Your task to perform on an android device: Open notification settings Image 0: 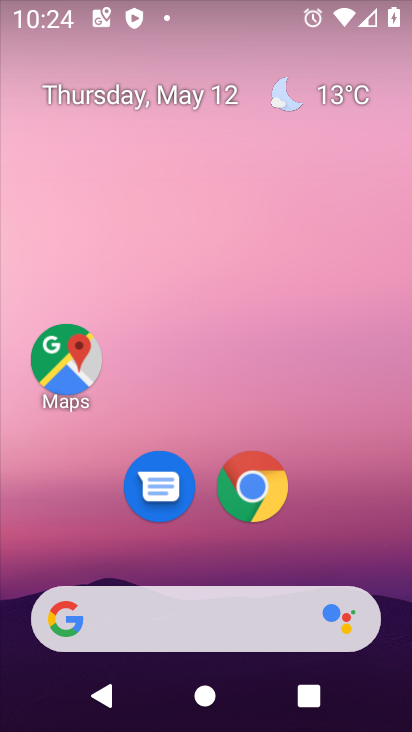
Step 0: drag from (364, 483) to (290, 153)
Your task to perform on an android device: Open notification settings Image 1: 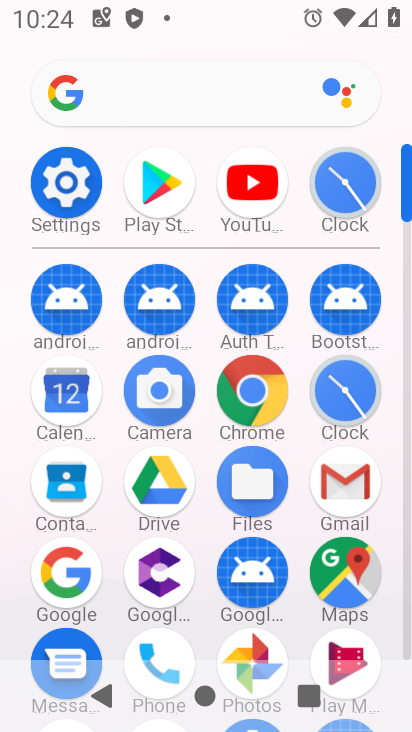
Step 1: click (71, 177)
Your task to perform on an android device: Open notification settings Image 2: 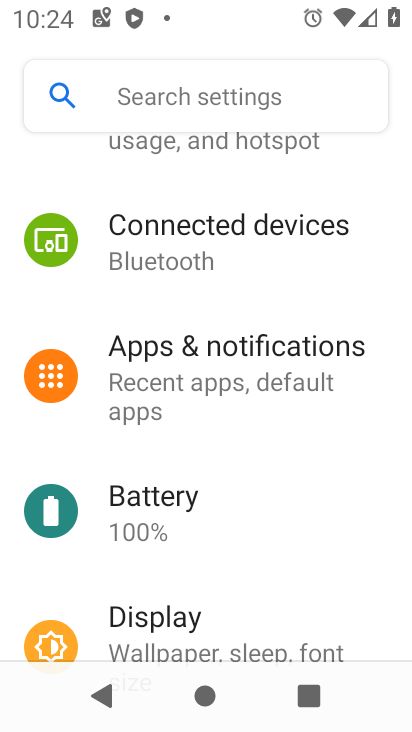
Step 2: drag from (215, 327) to (224, 408)
Your task to perform on an android device: Open notification settings Image 3: 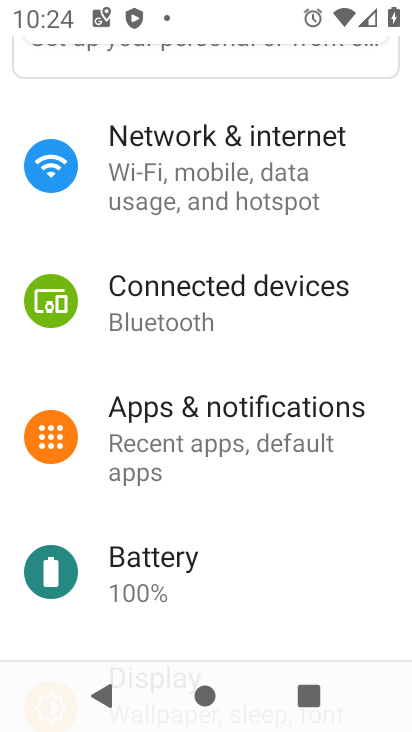
Step 3: click (224, 408)
Your task to perform on an android device: Open notification settings Image 4: 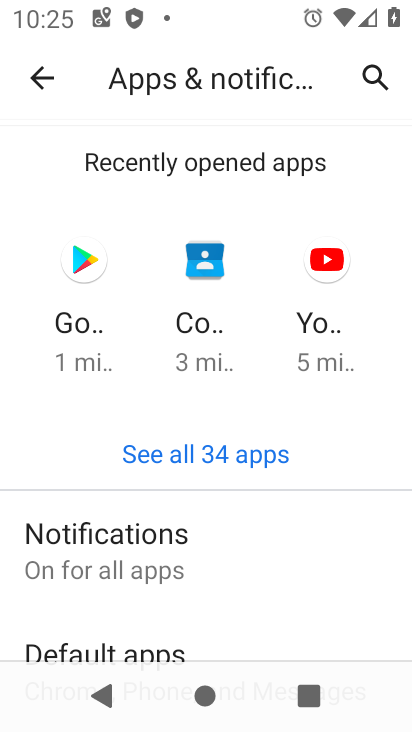
Step 4: task complete